Your task to perform on an android device: turn off wifi Image 0: 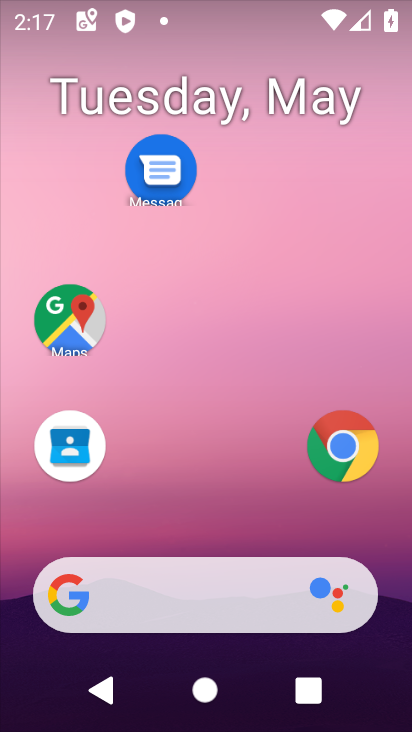
Step 0: drag from (196, 556) to (137, 104)
Your task to perform on an android device: turn off wifi Image 1: 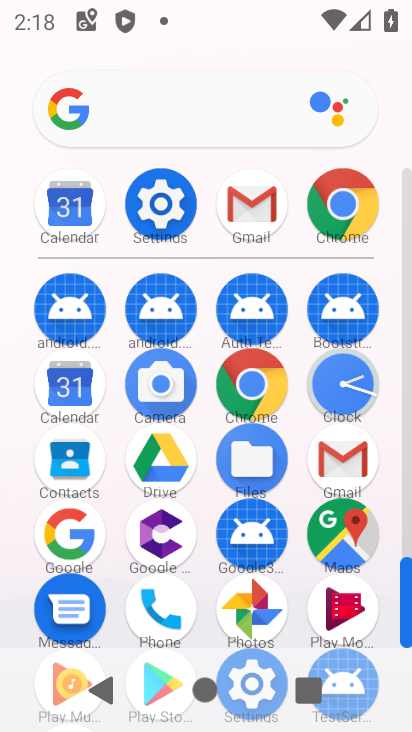
Step 1: click (171, 220)
Your task to perform on an android device: turn off wifi Image 2: 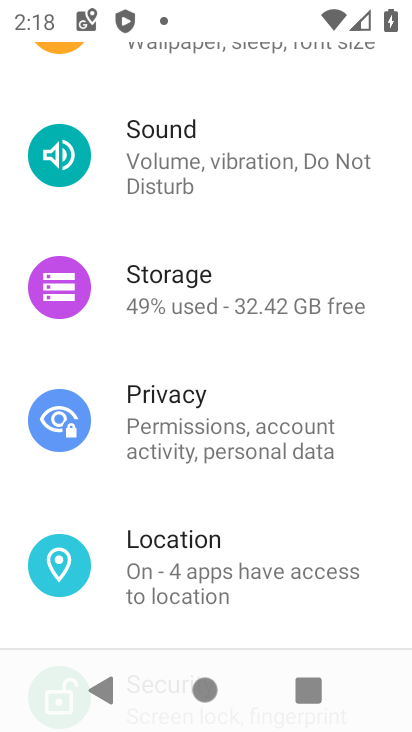
Step 2: drag from (206, 199) to (180, 689)
Your task to perform on an android device: turn off wifi Image 3: 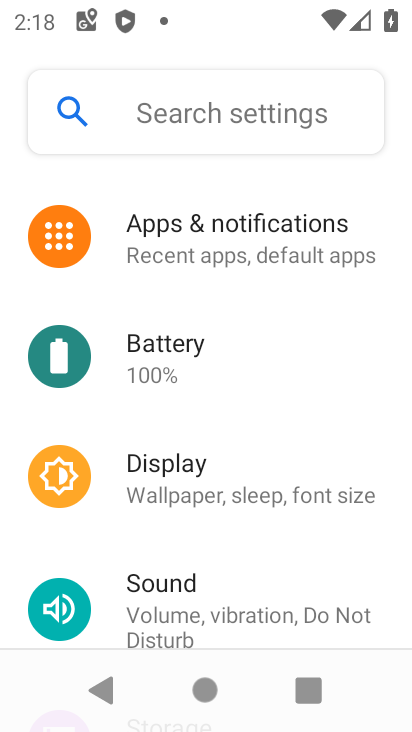
Step 3: drag from (180, 253) to (177, 591)
Your task to perform on an android device: turn off wifi Image 4: 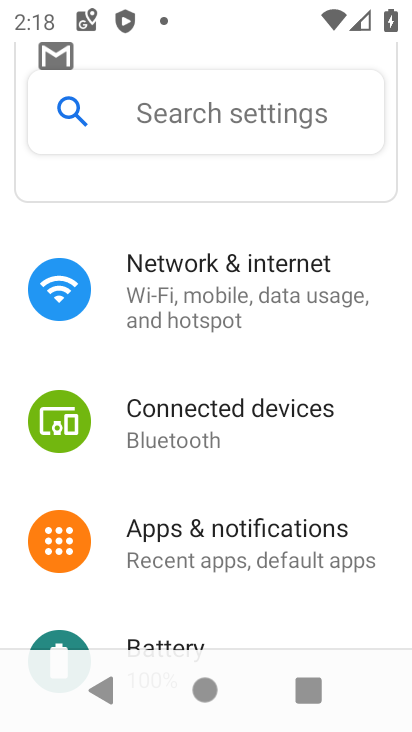
Step 4: click (201, 297)
Your task to perform on an android device: turn off wifi Image 5: 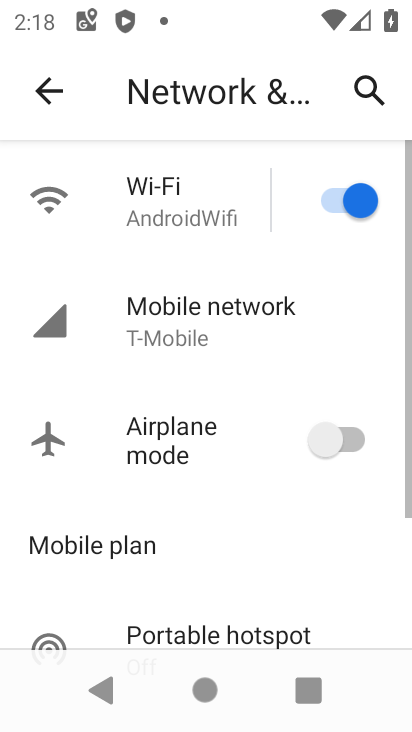
Step 5: click (194, 211)
Your task to perform on an android device: turn off wifi Image 6: 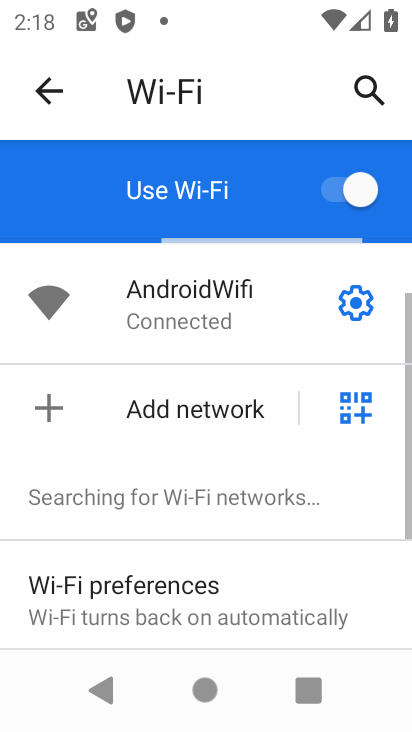
Step 6: click (345, 187)
Your task to perform on an android device: turn off wifi Image 7: 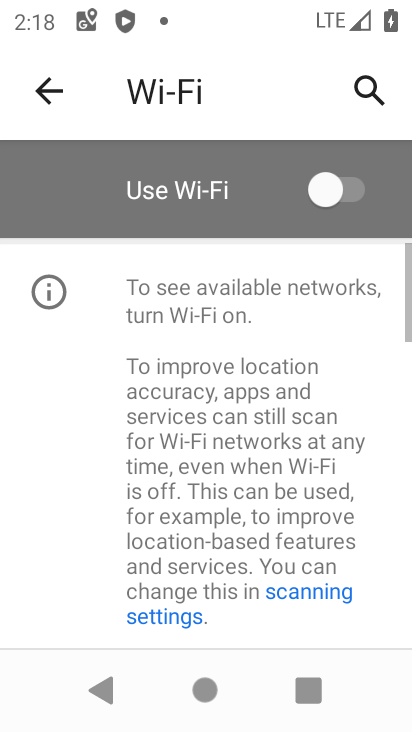
Step 7: task complete